Your task to perform on an android device: open wifi settings Image 0: 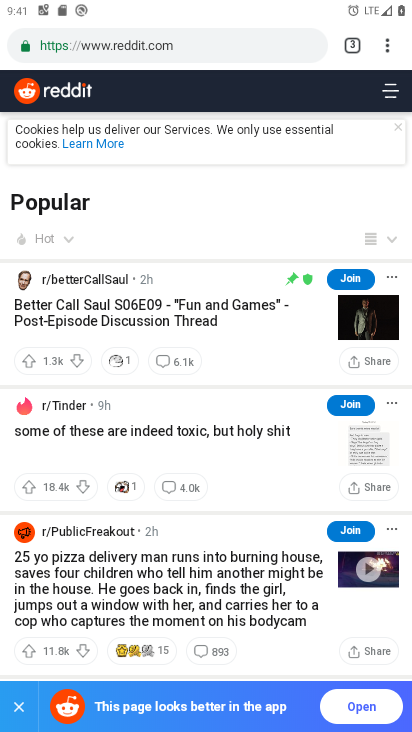
Step 0: press home button
Your task to perform on an android device: open wifi settings Image 1: 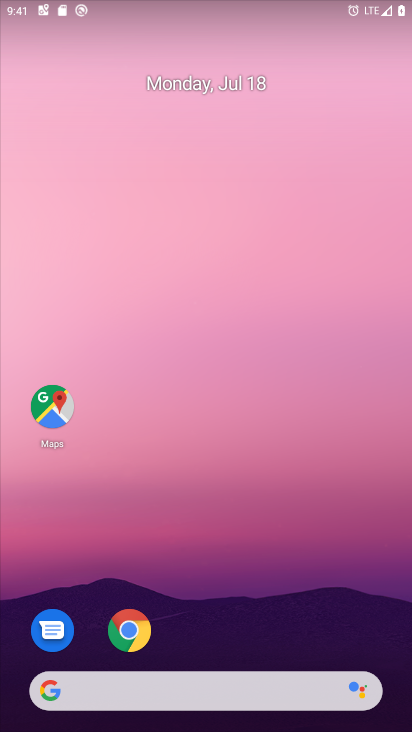
Step 1: drag from (225, 637) to (219, 230)
Your task to perform on an android device: open wifi settings Image 2: 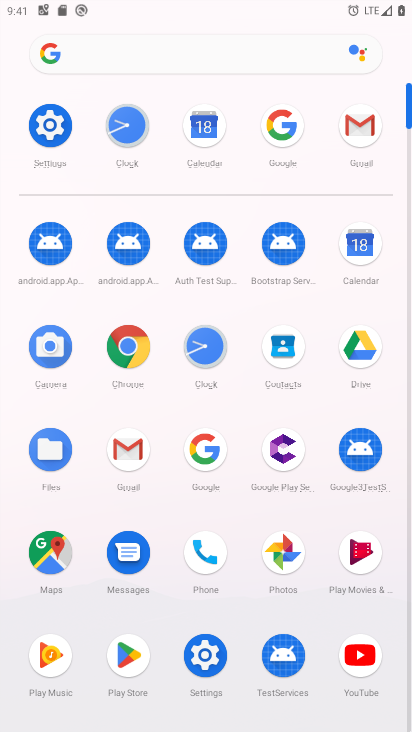
Step 2: click (58, 133)
Your task to perform on an android device: open wifi settings Image 3: 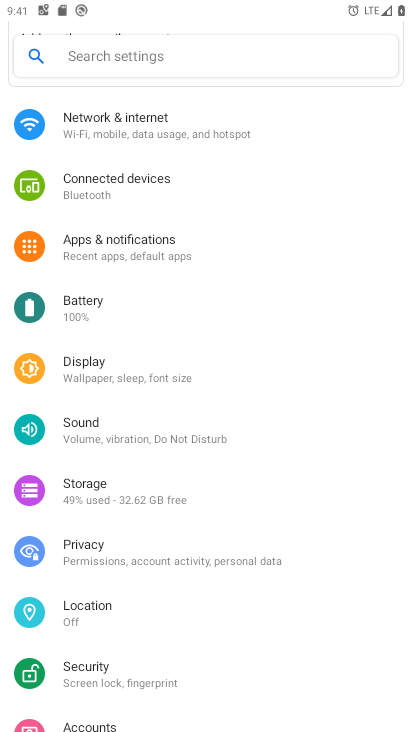
Step 3: click (142, 116)
Your task to perform on an android device: open wifi settings Image 4: 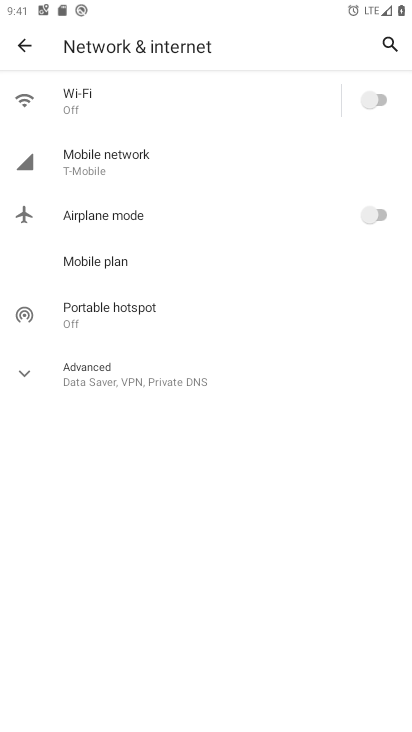
Step 4: click (82, 95)
Your task to perform on an android device: open wifi settings Image 5: 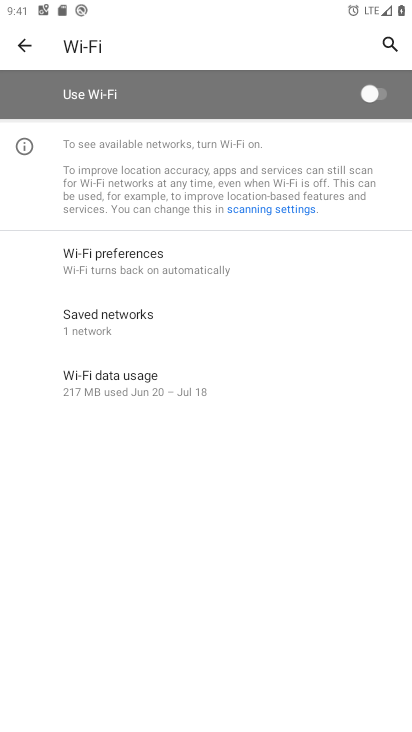
Step 5: task complete